Your task to perform on an android device: empty trash in google photos Image 0: 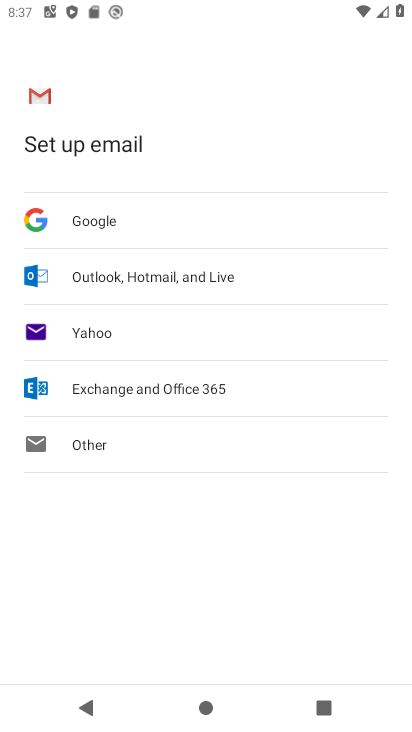
Step 0: press home button
Your task to perform on an android device: empty trash in google photos Image 1: 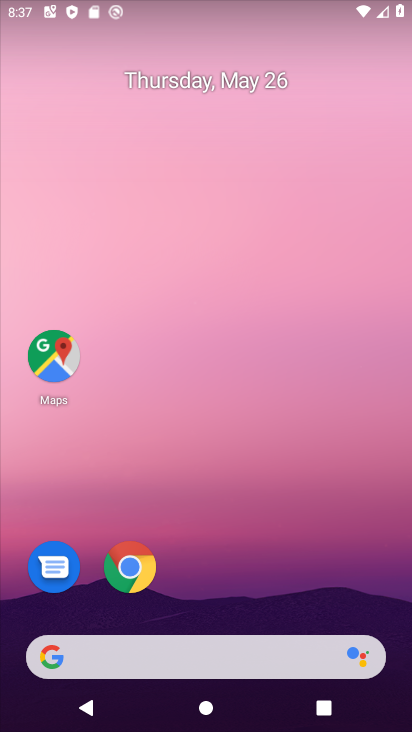
Step 1: drag from (125, 654) to (320, 42)
Your task to perform on an android device: empty trash in google photos Image 2: 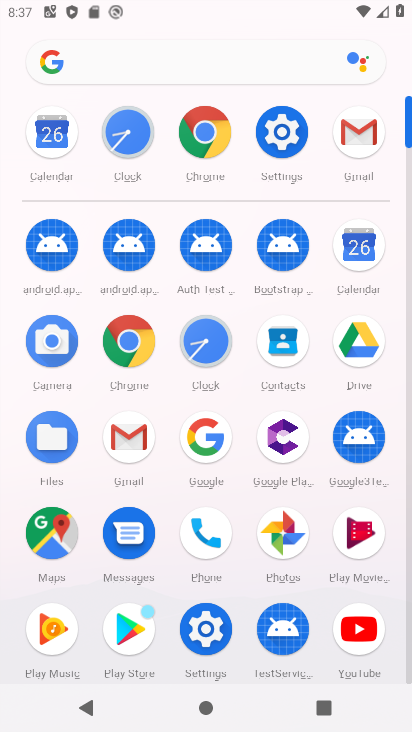
Step 2: click (284, 535)
Your task to perform on an android device: empty trash in google photos Image 3: 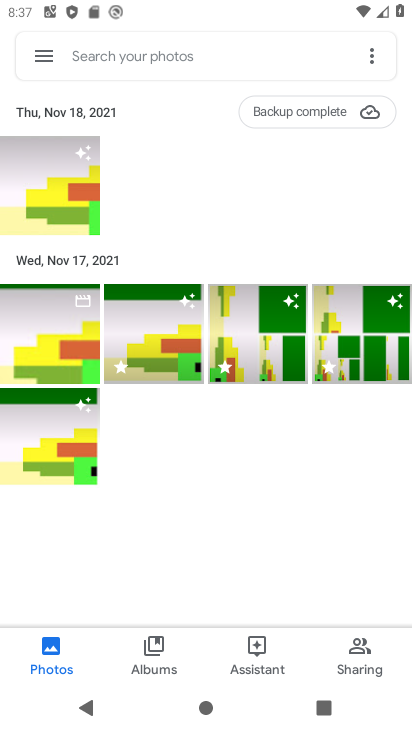
Step 3: click (38, 47)
Your task to perform on an android device: empty trash in google photos Image 4: 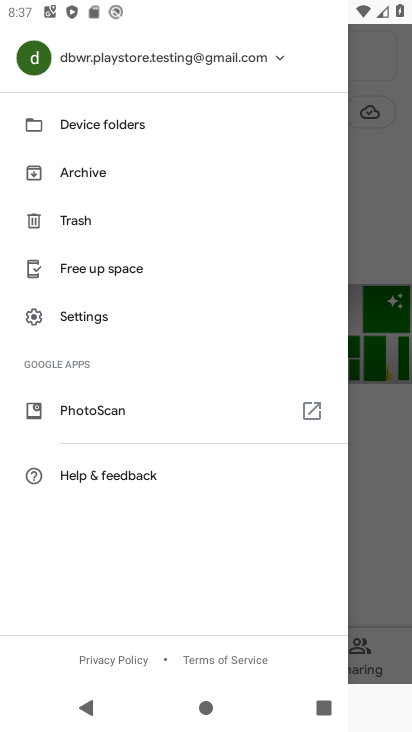
Step 4: click (81, 218)
Your task to perform on an android device: empty trash in google photos Image 5: 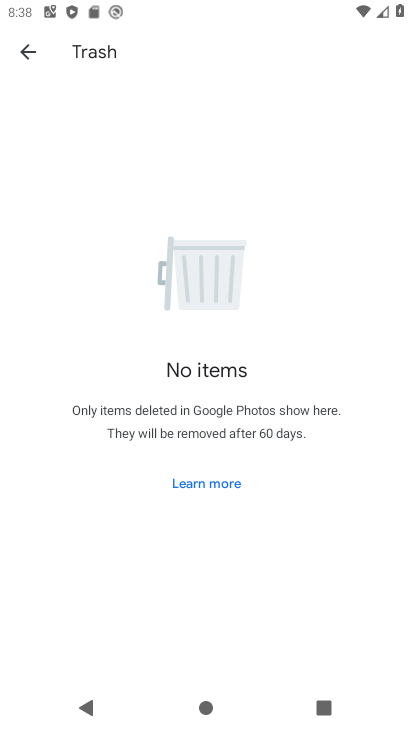
Step 5: task complete